Your task to perform on an android device: toggle airplane mode Image 0: 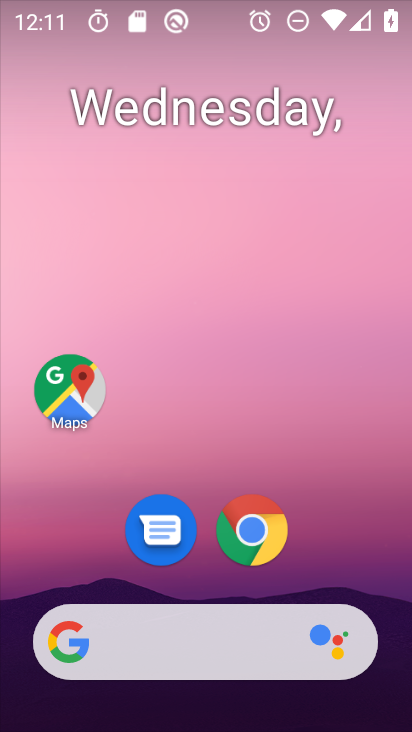
Step 0: drag from (332, 547) to (347, 115)
Your task to perform on an android device: toggle airplane mode Image 1: 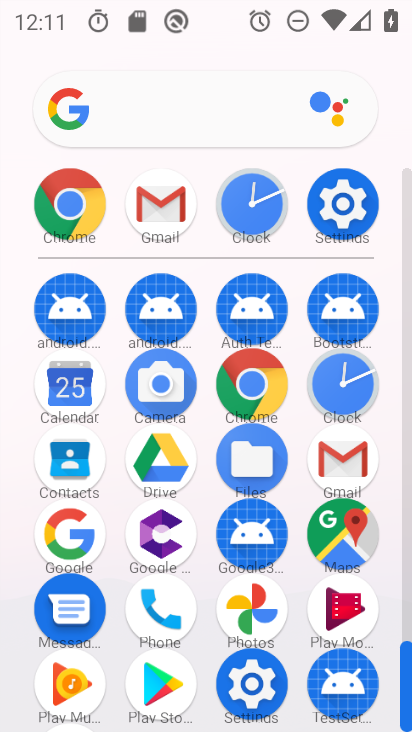
Step 1: click (349, 176)
Your task to perform on an android device: toggle airplane mode Image 2: 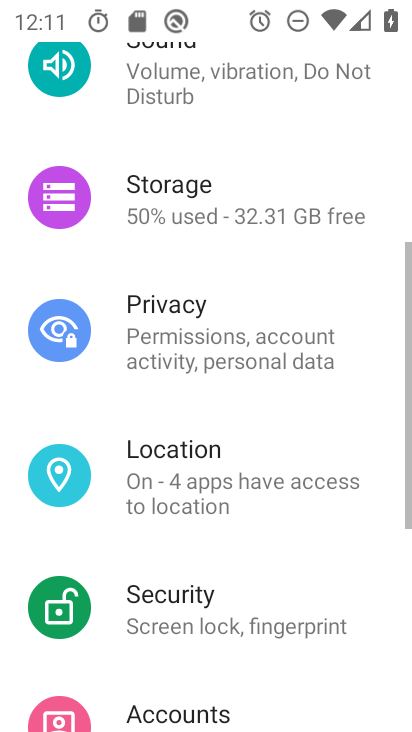
Step 2: drag from (227, 119) to (56, 547)
Your task to perform on an android device: toggle airplane mode Image 3: 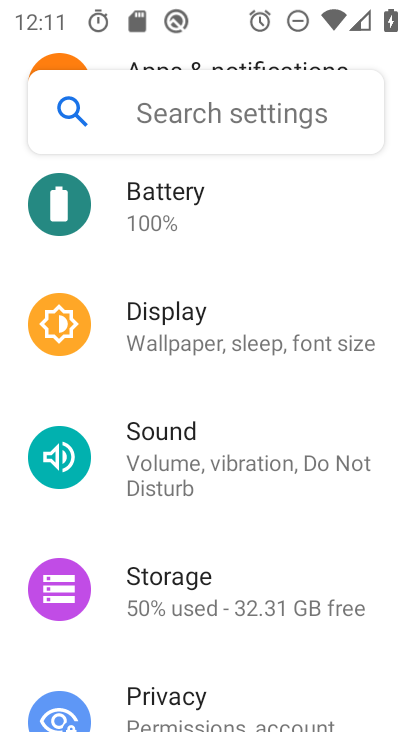
Step 3: drag from (131, 192) to (178, 603)
Your task to perform on an android device: toggle airplane mode Image 4: 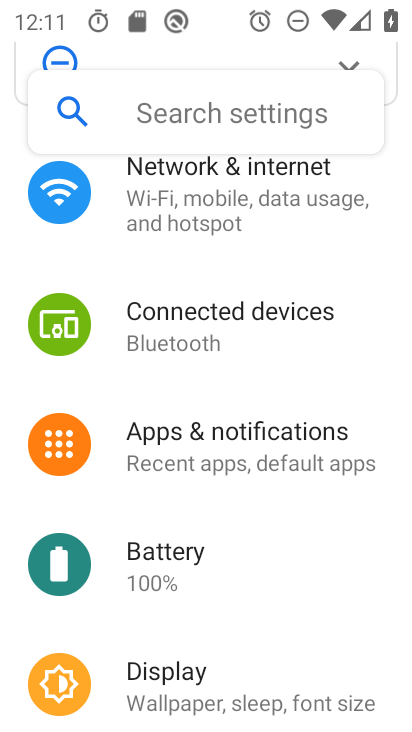
Step 4: drag from (211, 179) to (223, 594)
Your task to perform on an android device: toggle airplane mode Image 5: 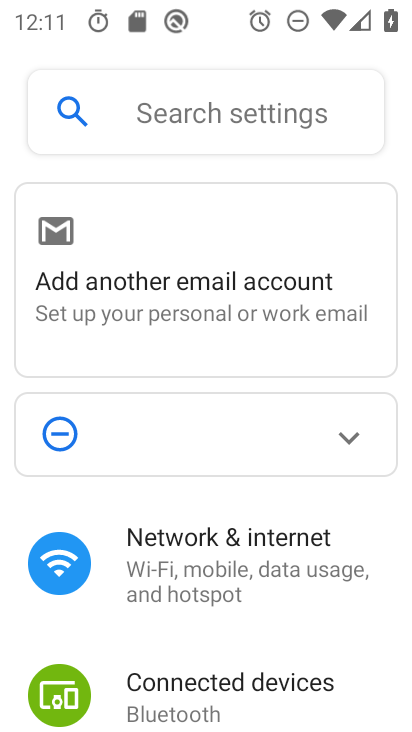
Step 5: click (176, 546)
Your task to perform on an android device: toggle airplane mode Image 6: 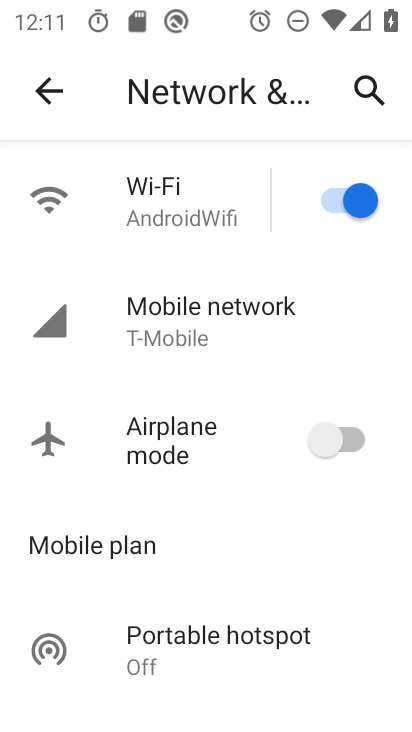
Step 6: click (324, 440)
Your task to perform on an android device: toggle airplane mode Image 7: 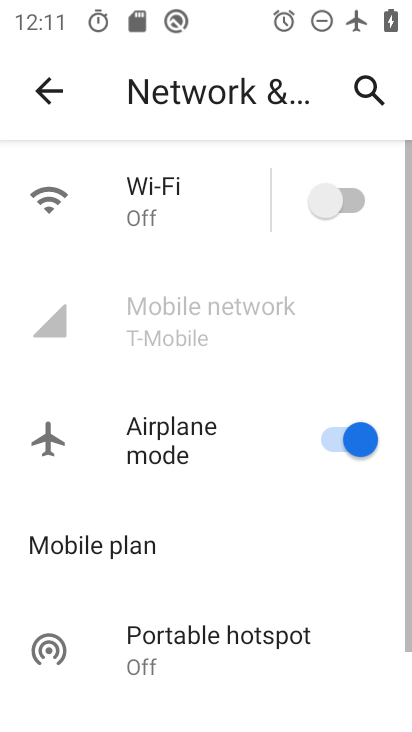
Step 7: task complete